Your task to perform on an android device: Toggle the flashlight Image 0: 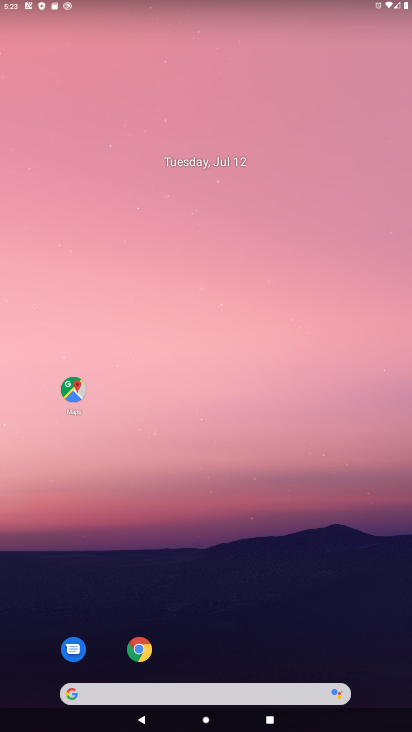
Step 0: drag from (195, 689) to (202, 105)
Your task to perform on an android device: Toggle the flashlight Image 1: 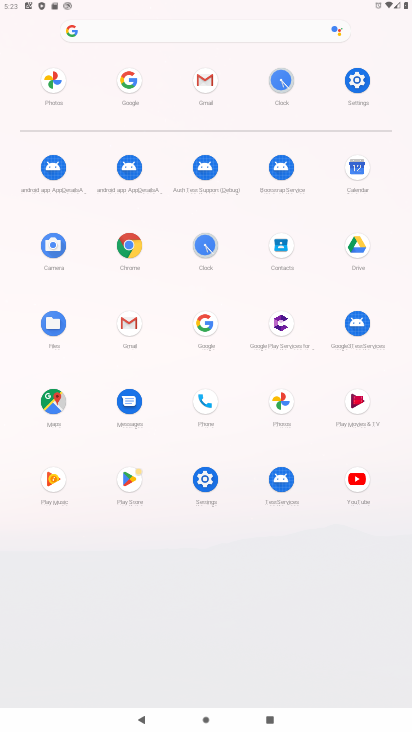
Step 1: click (357, 79)
Your task to perform on an android device: Toggle the flashlight Image 2: 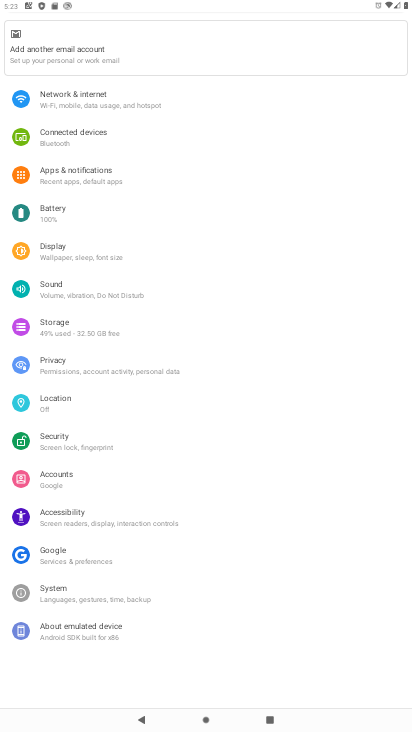
Step 2: click (70, 253)
Your task to perform on an android device: Toggle the flashlight Image 3: 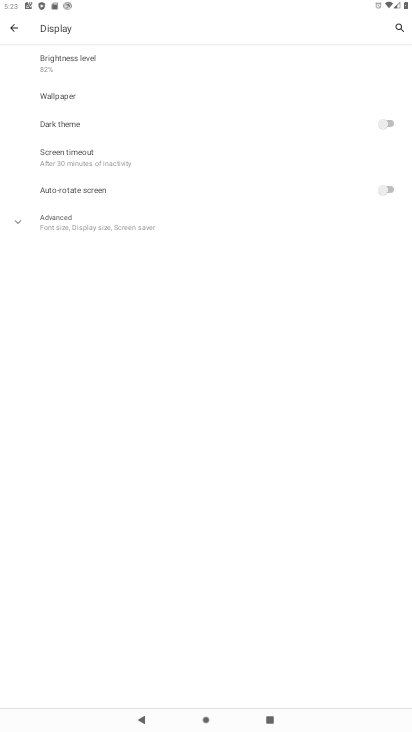
Step 3: click (59, 215)
Your task to perform on an android device: Toggle the flashlight Image 4: 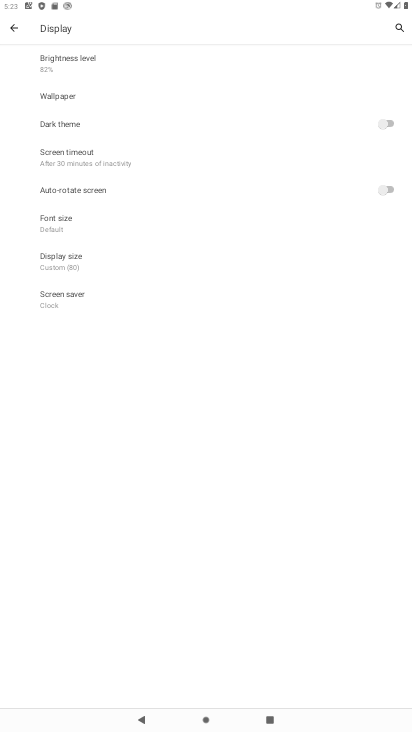
Step 4: press back button
Your task to perform on an android device: Toggle the flashlight Image 5: 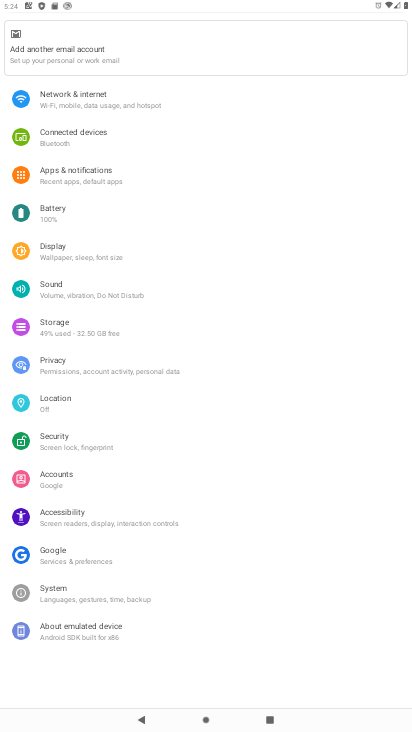
Step 5: click (58, 221)
Your task to perform on an android device: Toggle the flashlight Image 6: 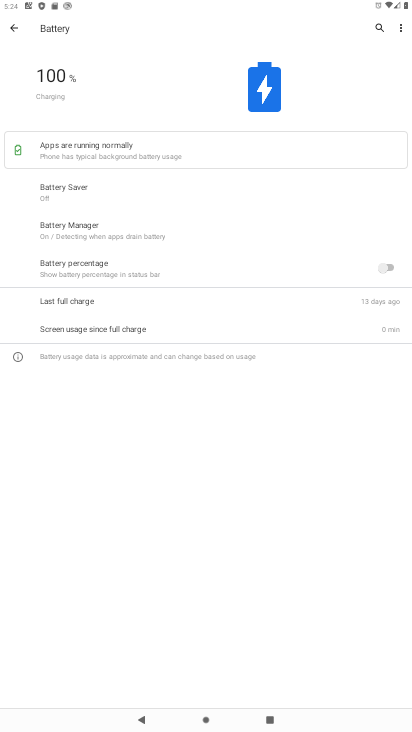
Step 6: task complete